Your task to perform on an android device: Go to Yahoo.com Image 0: 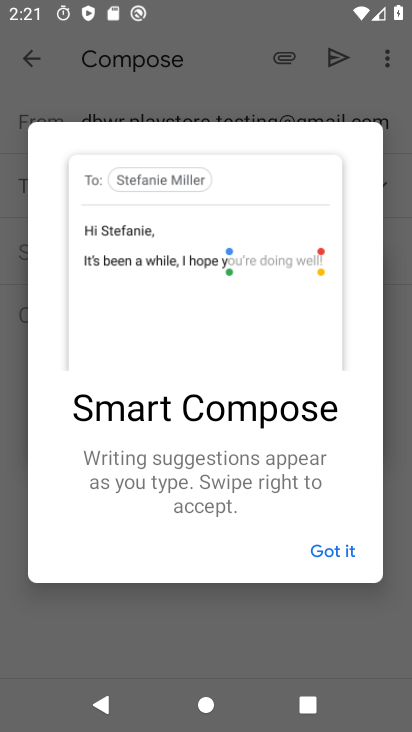
Step 0: press home button
Your task to perform on an android device: Go to Yahoo.com Image 1: 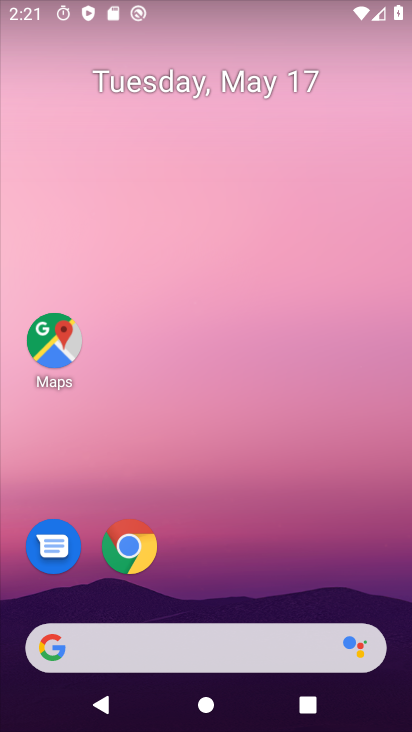
Step 1: drag from (278, 641) to (323, 163)
Your task to perform on an android device: Go to Yahoo.com Image 2: 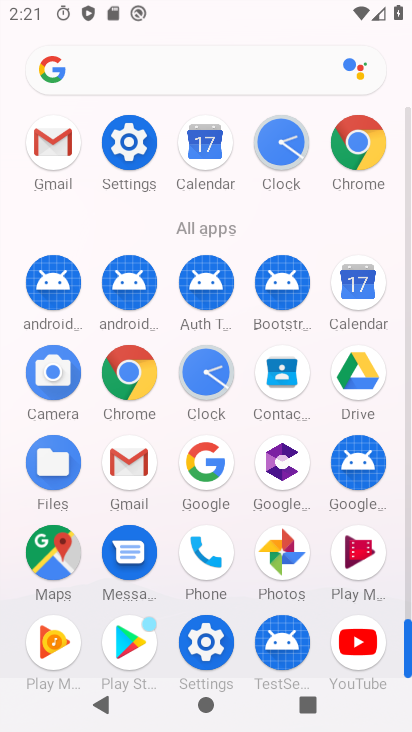
Step 2: click (363, 167)
Your task to perform on an android device: Go to Yahoo.com Image 3: 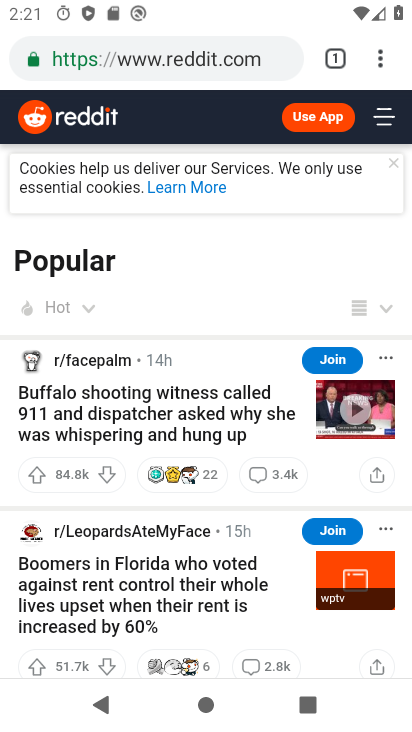
Step 3: click (205, 65)
Your task to perform on an android device: Go to Yahoo.com Image 4: 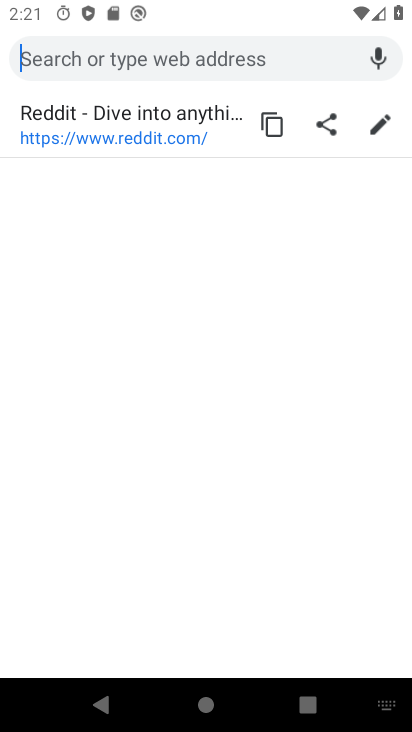
Step 4: type "yahoo"
Your task to perform on an android device: Go to Yahoo.com Image 5: 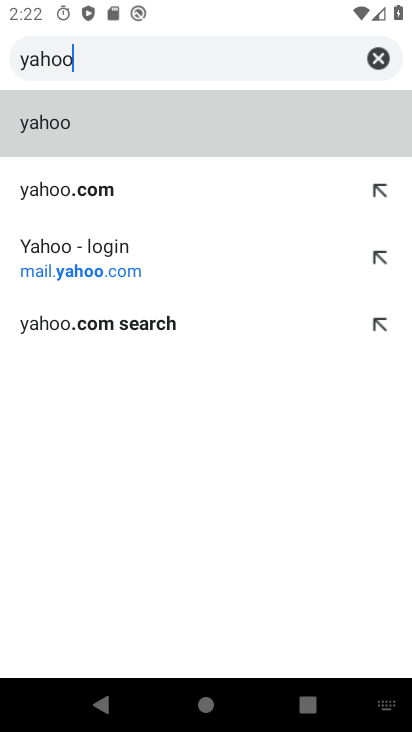
Step 5: click (203, 256)
Your task to perform on an android device: Go to Yahoo.com Image 6: 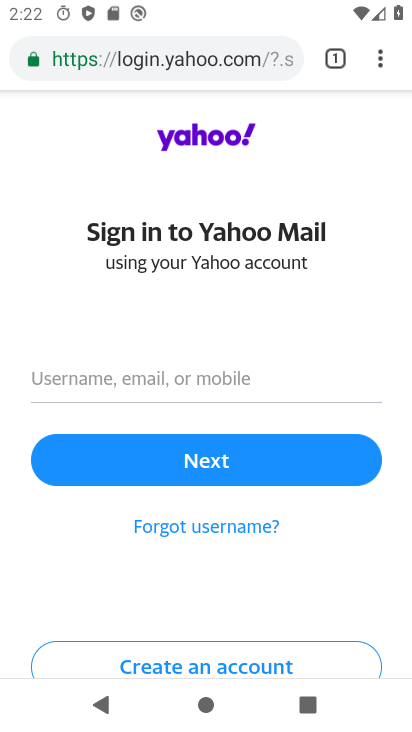
Step 6: task complete